Your task to perform on an android device: show emergency info Image 0: 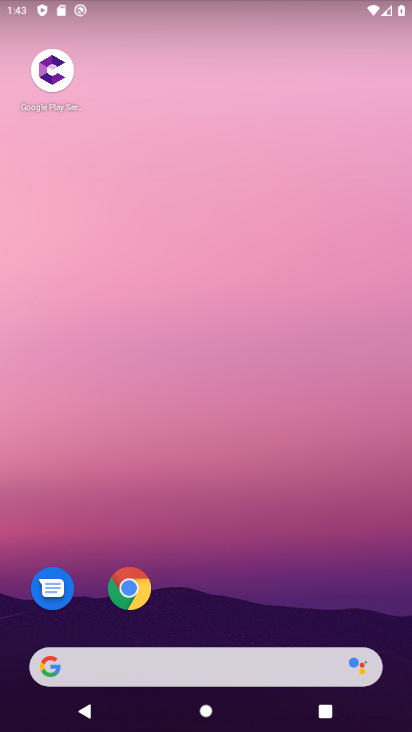
Step 0: drag from (223, 612) to (250, 118)
Your task to perform on an android device: show emergency info Image 1: 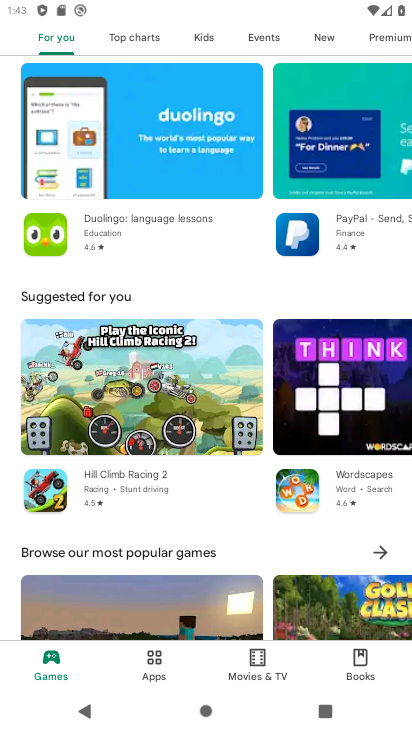
Step 1: press home button
Your task to perform on an android device: show emergency info Image 2: 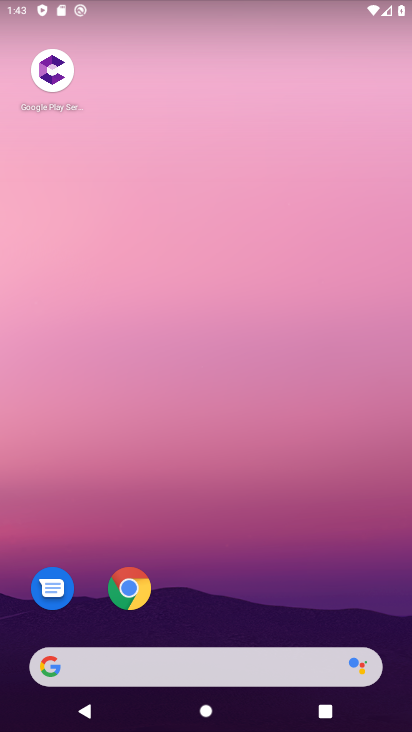
Step 2: drag from (238, 607) to (200, 203)
Your task to perform on an android device: show emergency info Image 3: 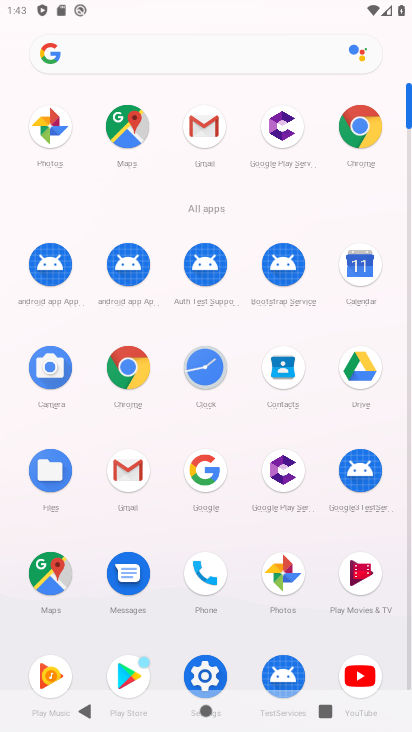
Step 3: click (204, 664)
Your task to perform on an android device: show emergency info Image 4: 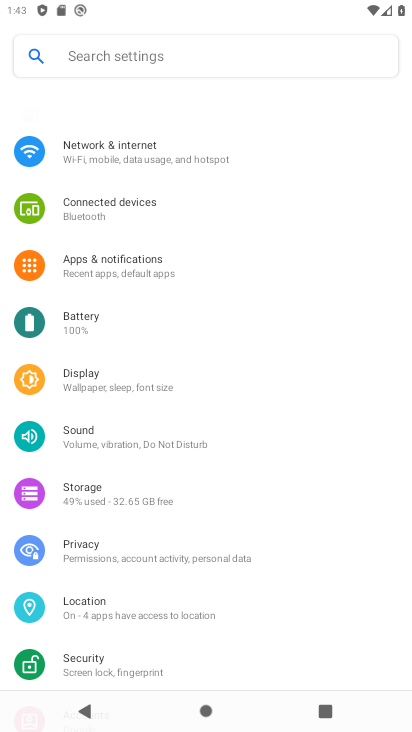
Step 4: drag from (204, 664) to (221, 348)
Your task to perform on an android device: show emergency info Image 5: 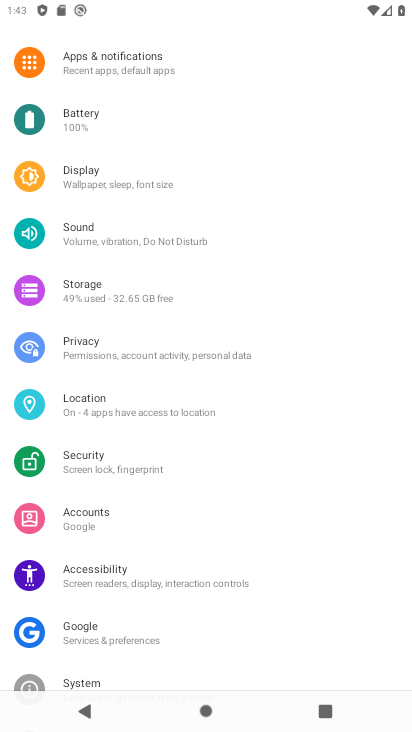
Step 5: drag from (163, 588) to (198, 248)
Your task to perform on an android device: show emergency info Image 6: 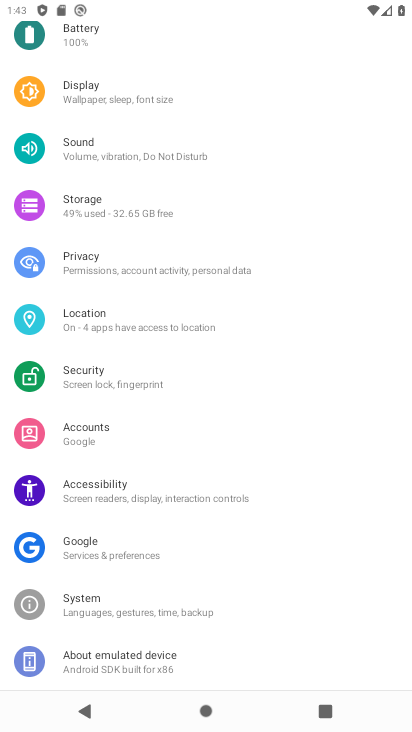
Step 6: click (155, 675)
Your task to perform on an android device: show emergency info Image 7: 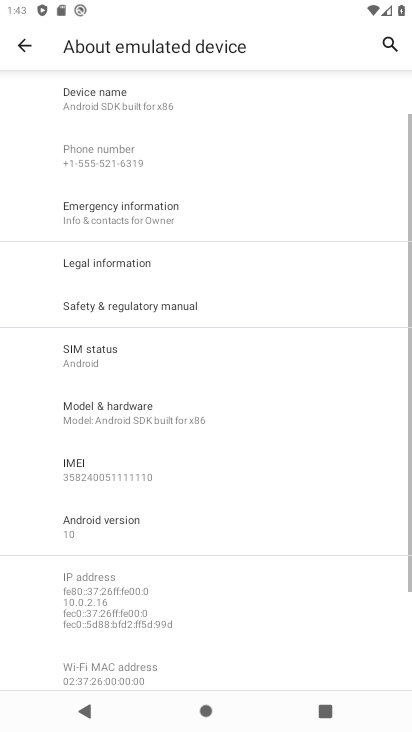
Step 7: click (198, 220)
Your task to perform on an android device: show emergency info Image 8: 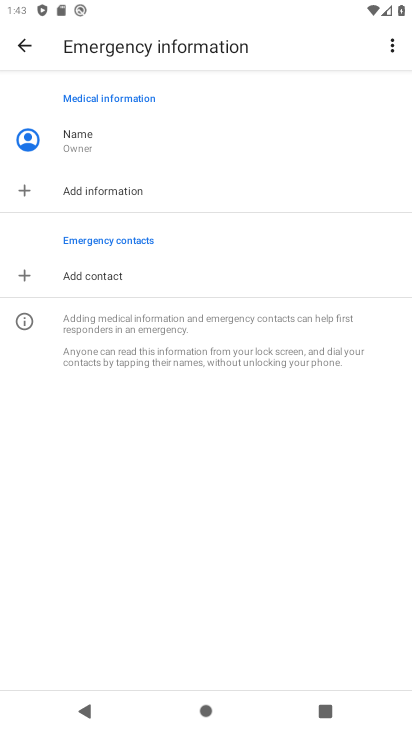
Step 8: task complete